Your task to perform on an android device: Search for seafood restaurants on Google Maps Image 0: 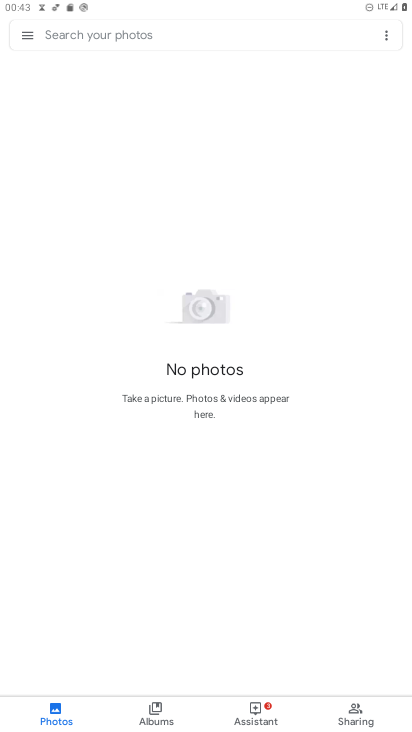
Step 0: press home button
Your task to perform on an android device: Search for seafood restaurants on Google Maps Image 1: 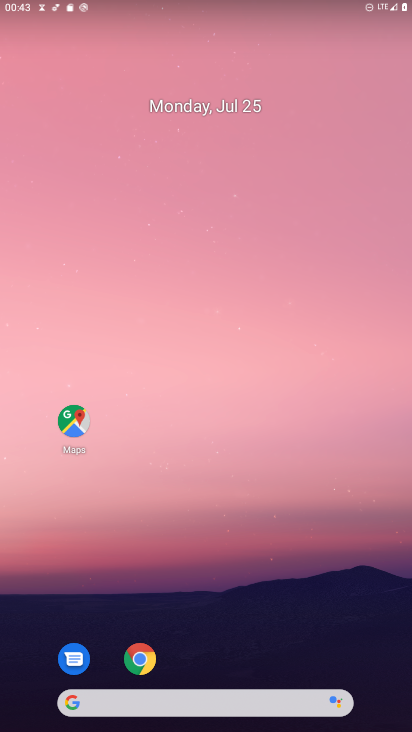
Step 1: click (72, 421)
Your task to perform on an android device: Search for seafood restaurants on Google Maps Image 2: 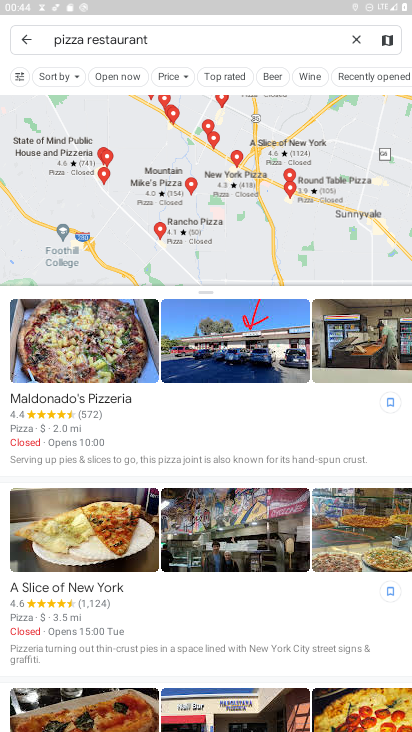
Step 2: click (361, 35)
Your task to perform on an android device: Search for seafood restaurants on Google Maps Image 3: 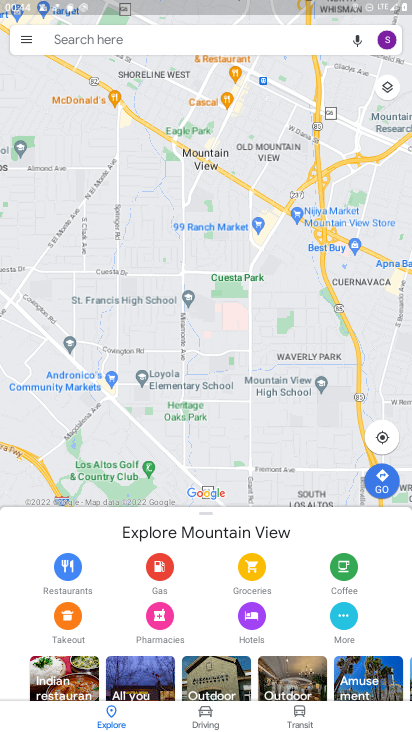
Step 3: click (132, 34)
Your task to perform on an android device: Search for seafood restaurants on Google Maps Image 4: 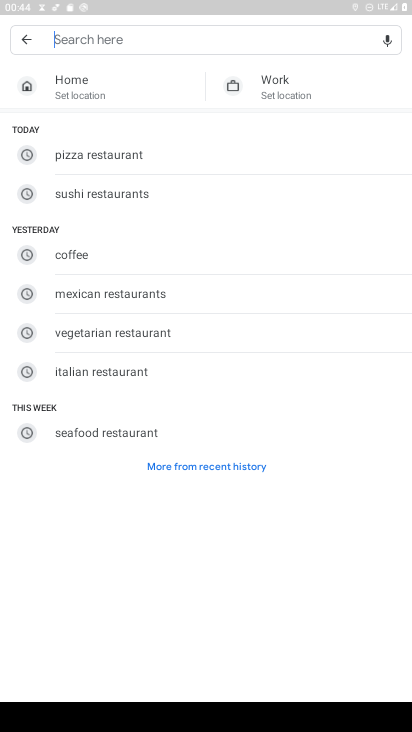
Step 4: click (90, 437)
Your task to perform on an android device: Search for seafood restaurants on Google Maps Image 5: 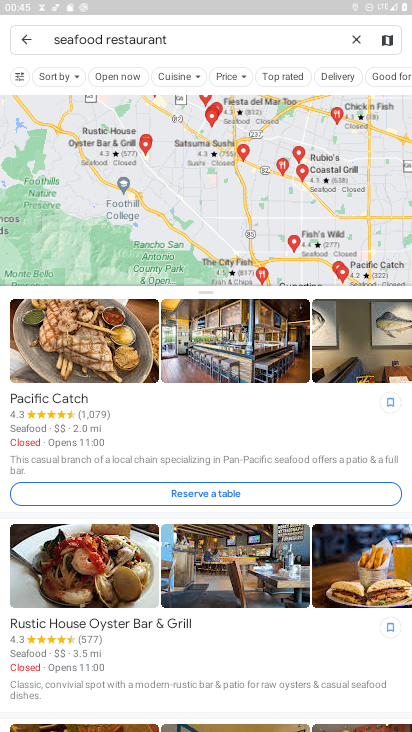
Step 5: task complete